Your task to perform on an android device: Turn off the flashlight Image 0: 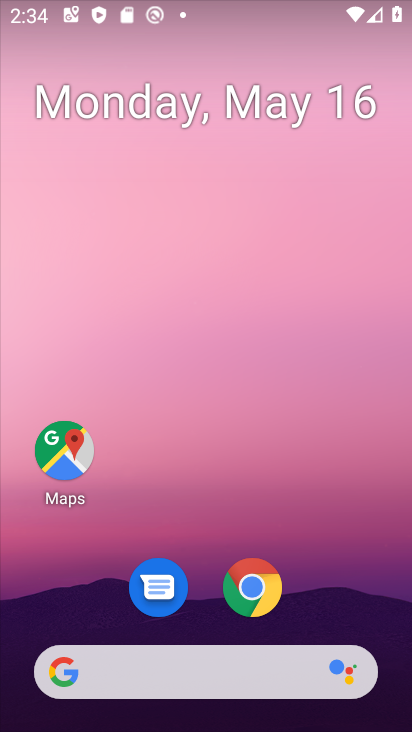
Step 0: drag from (371, 598) to (267, 85)
Your task to perform on an android device: Turn off the flashlight Image 1: 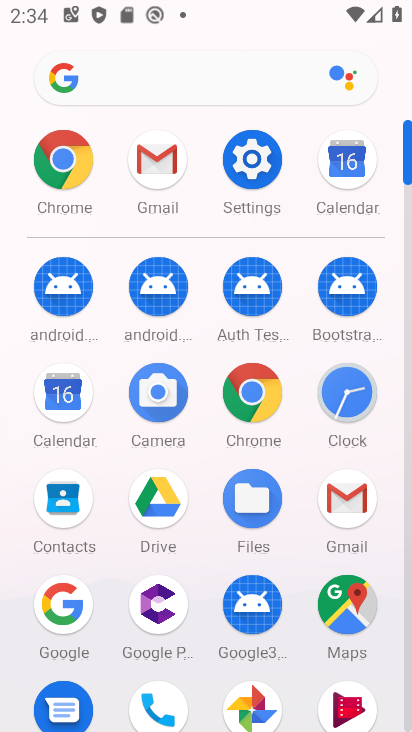
Step 1: task complete